Your task to perform on an android device: Turn off the flashlight Image 0: 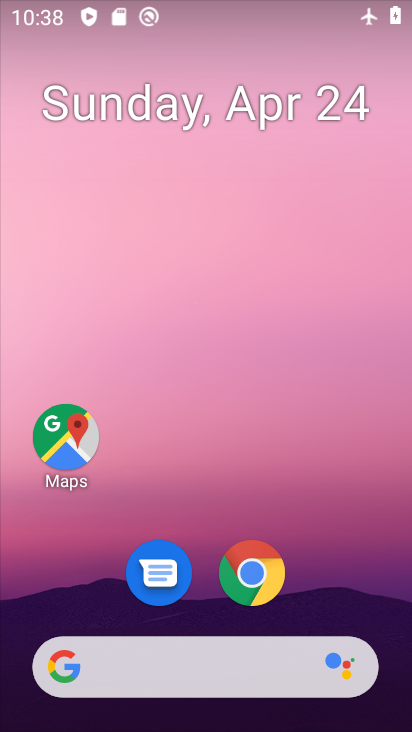
Step 0: drag from (335, 585) to (366, 85)
Your task to perform on an android device: Turn off the flashlight Image 1: 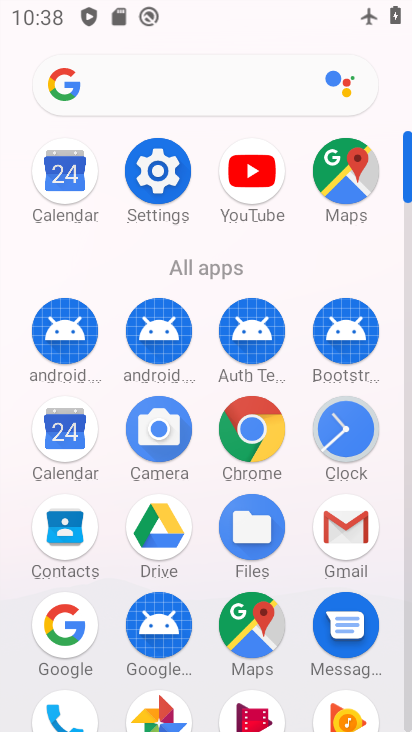
Step 1: drag from (208, 550) to (239, 313)
Your task to perform on an android device: Turn off the flashlight Image 2: 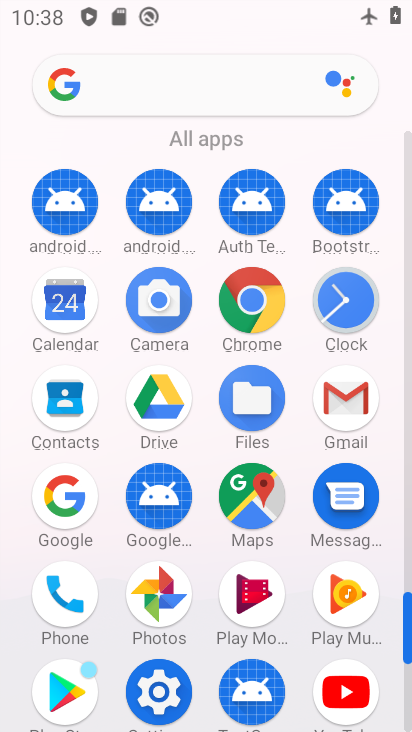
Step 2: click (153, 675)
Your task to perform on an android device: Turn off the flashlight Image 3: 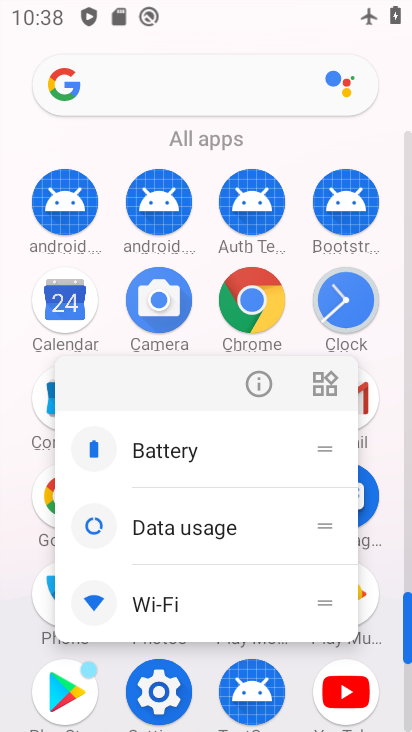
Step 3: click (152, 712)
Your task to perform on an android device: Turn off the flashlight Image 4: 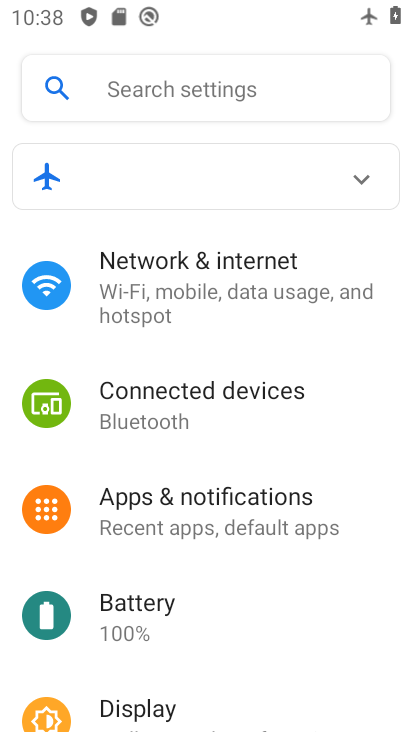
Step 4: task complete